Your task to perform on an android device: Open Wikipedia Image 0: 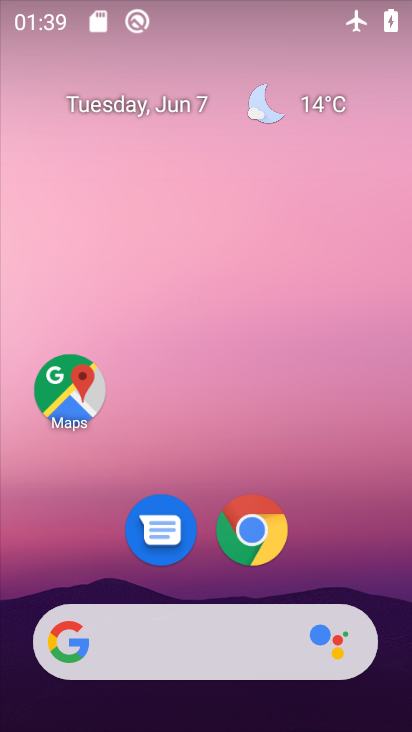
Step 0: click (274, 534)
Your task to perform on an android device: Open Wikipedia Image 1: 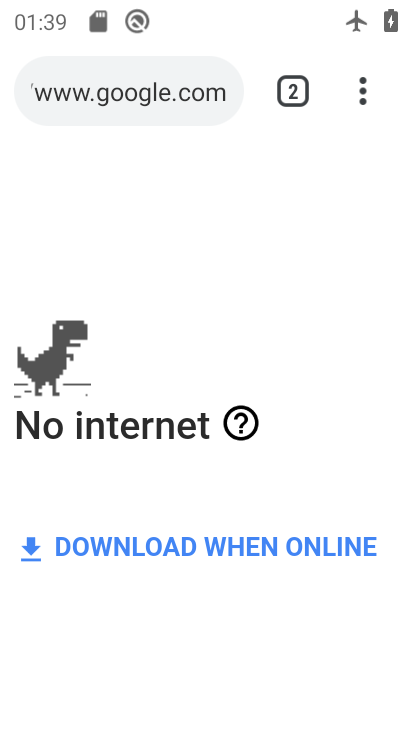
Step 1: click (361, 76)
Your task to perform on an android device: Open Wikipedia Image 2: 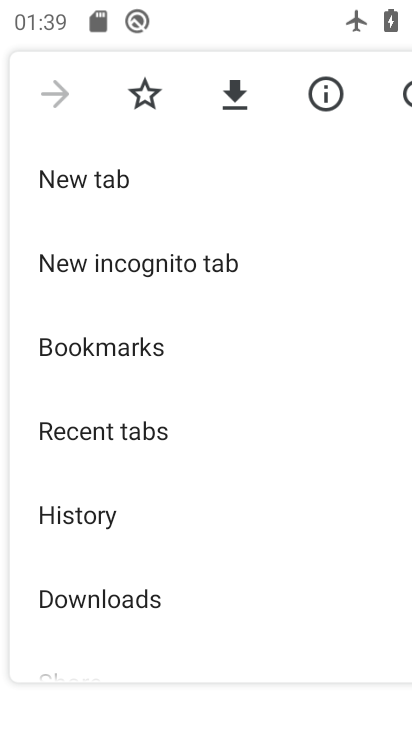
Step 2: click (74, 181)
Your task to perform on an android device: Open Wikipedia Image 3: 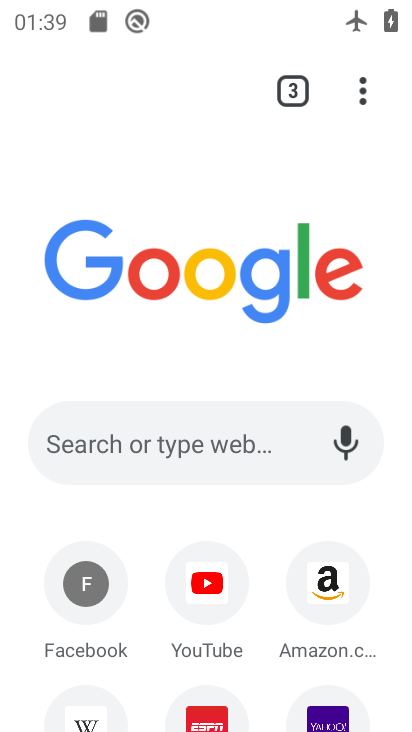
Step 3: drag from (202, 648) to (192, 354)
Your task to perform on an android device: Open Wikipedia Image 4: 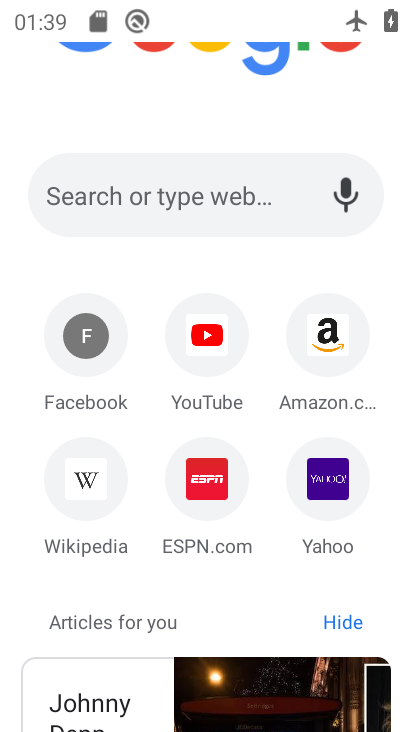
Step 4: click (82, 476)
Your task to perform on an android device: Open Wikipedia Image 5: 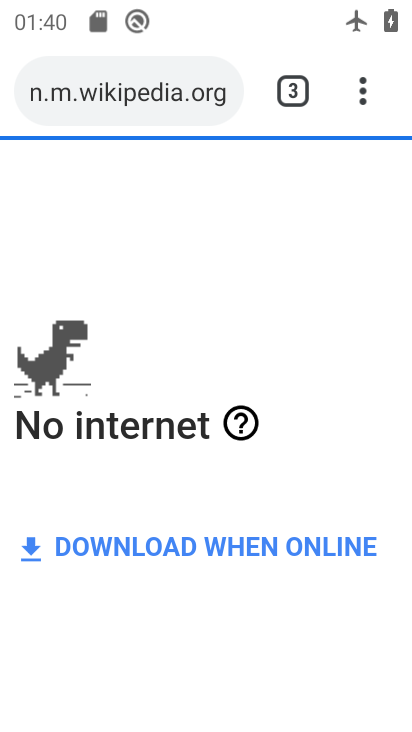
Step 5: task complete